Your task to perform on an android device: turn off improve location accuracy Image 0: 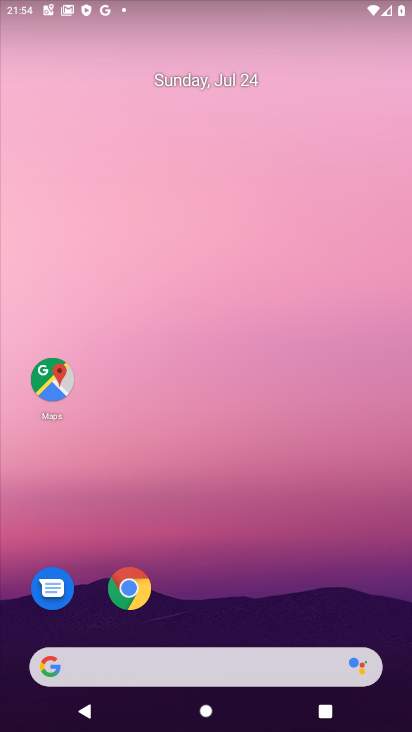
Step 0: drag from (198, 660) to (191, 135)
Your task to perform on an android device: turn off improve location accuracy Image 1: 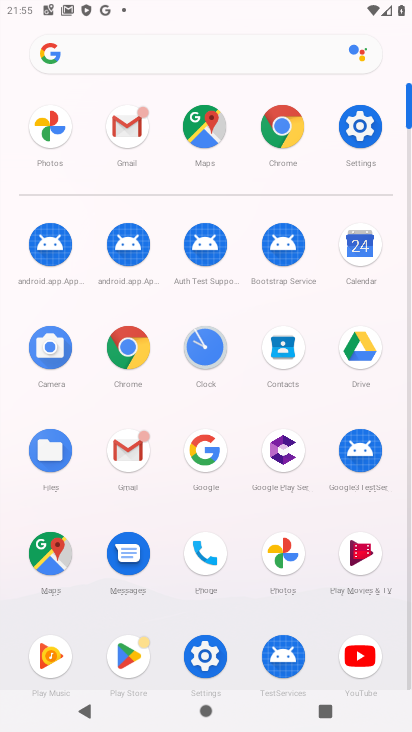
Step 1: click (358, 130)
Your task to perform on an android device: turn off improve location accuracy Image 2: 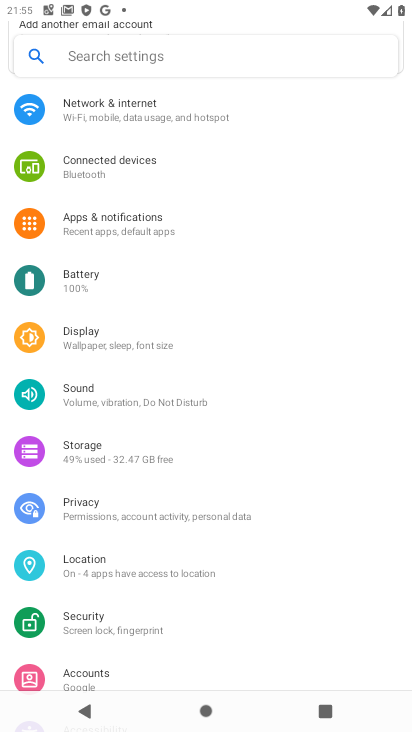
Step 2: click (98, 578)
Your task to perform on an android device: turn off improve location accuracy Image 3: 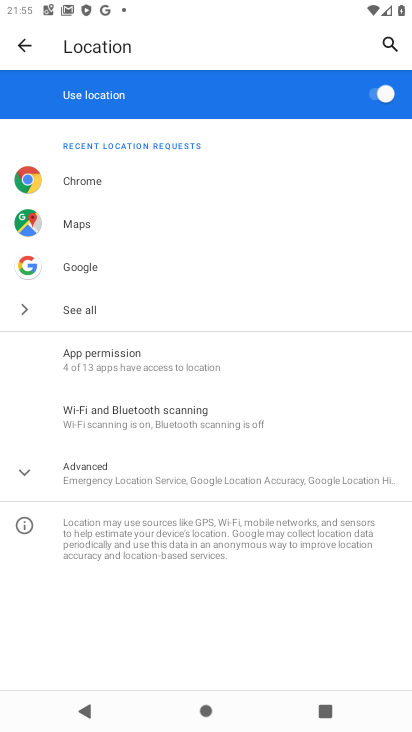
Step 3: click (112, 464)
Your task to perform on an android device: turn off improve location accuracy Image 4: 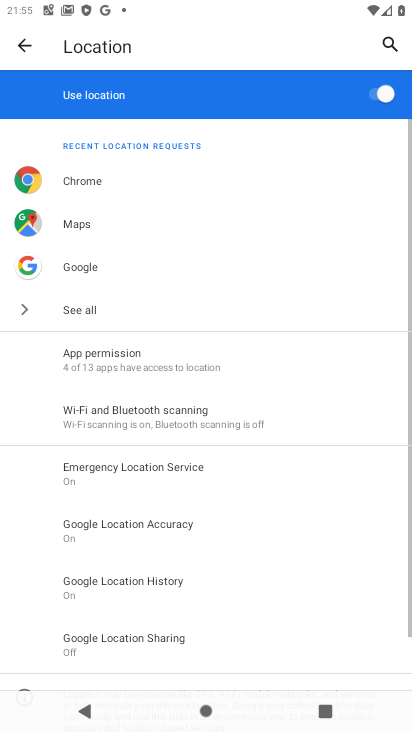
Step 4: click (194, 506)
Your task to perform on an android device: turn off improve location accuracy Image 5: 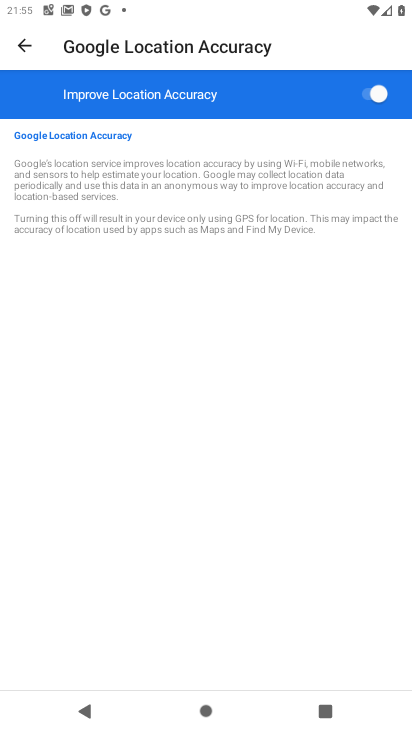
Step 5: click (386, 90)
Your task to perform on an android device: turn off improve location accuracy Image 6: 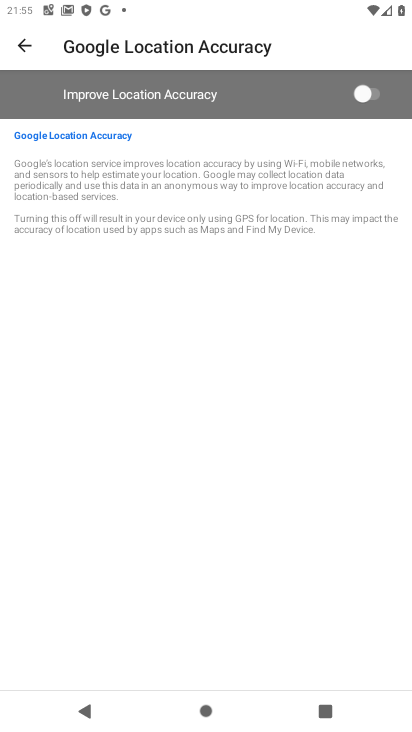
Step 6: task complete